Your task to perform on an android device: change the clock style Image 0: 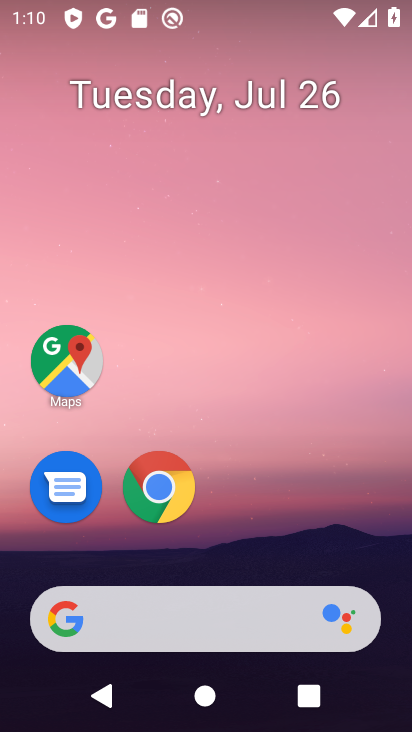
Step 0: drag from (269, 589) to (263, 111)
Your task to perform on an android device: change the clock style Image 1: 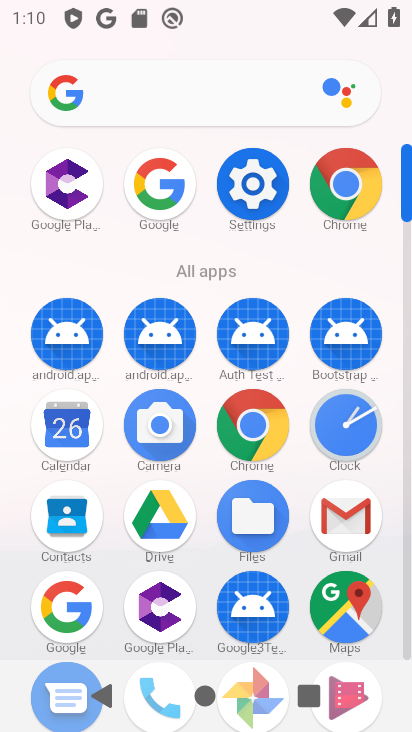
Step 1: drag from (212, 493) to (227, 142)
Your task to perform on an android device: change the clock style Image 2: 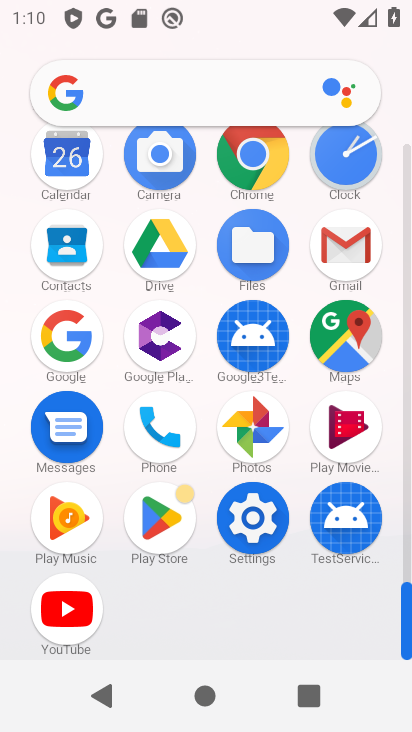
Step 2: click (347, 165)
Your task to perform on an android device: change the clock style Image 3: 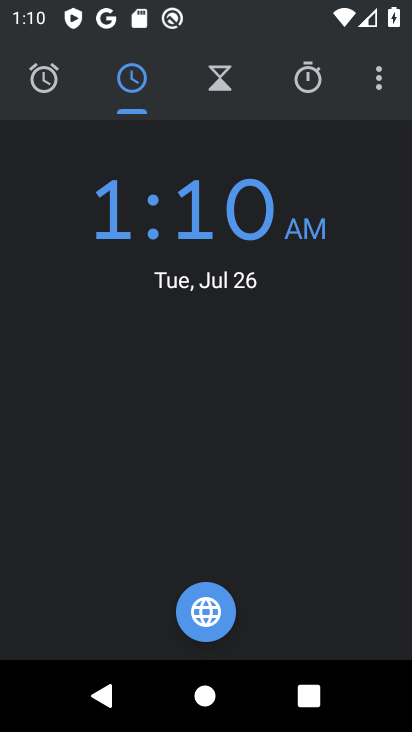
Step 3: click (390, 95)
Your task to perform on an android device: change the clock style Image 4: 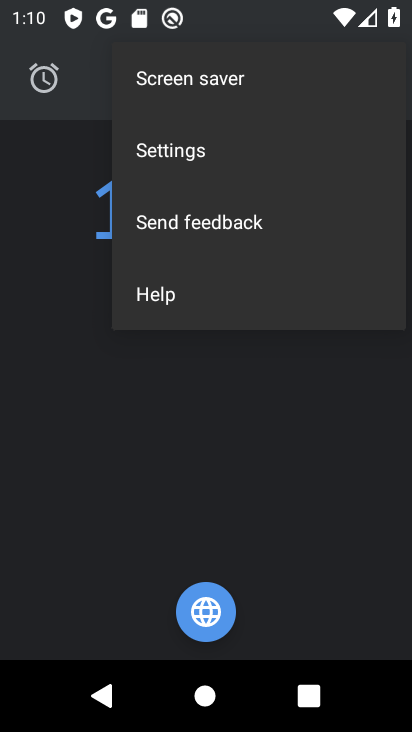
Step 4: click (244, 454)
Your task to perform on an android device: change the clock style Image 5: 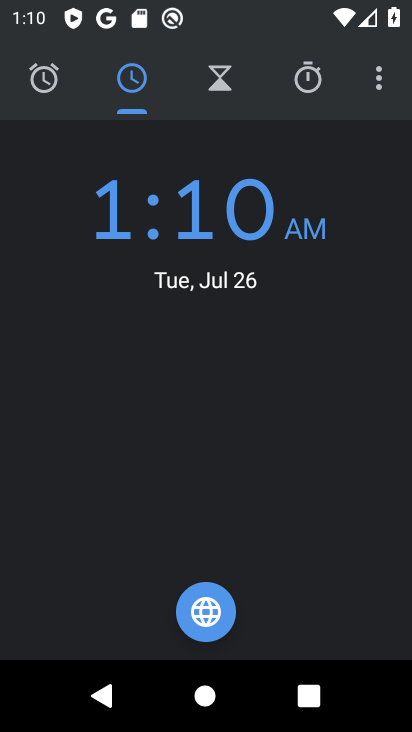
Step 5: click (382, 91)
Your task to perform on an android device: change the clock style Image 6: 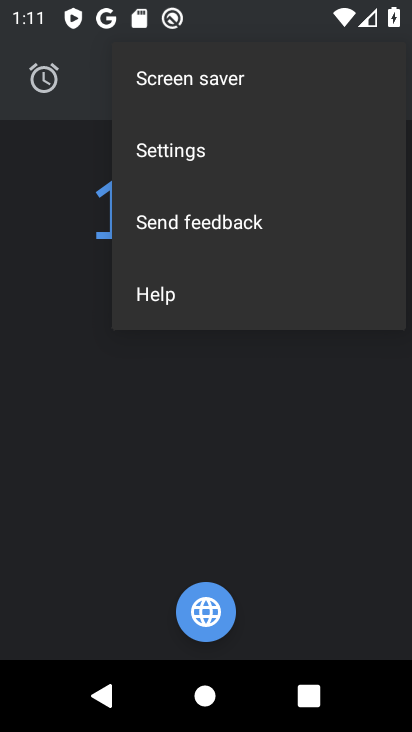
Step 6: click (194, 153)
Your task to perform on an android device: change the clock style Image 7: 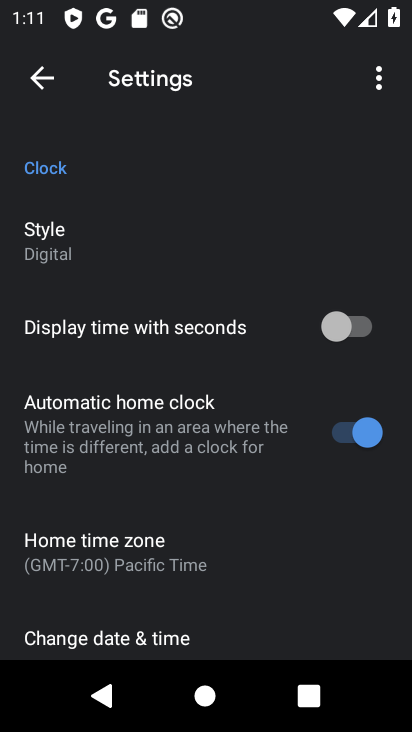
Step 7: click (119, 246)
Your task to perform on an android device: change the clock style Image 8: 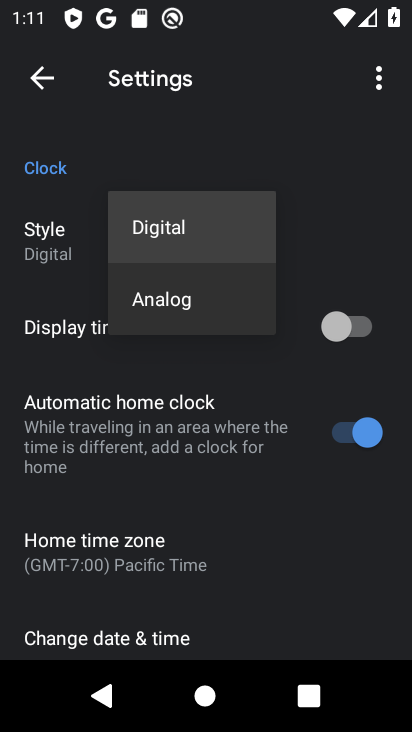
Step 8: click (253, 293)
Your task to perform on an android device: change the clock style Image 9: 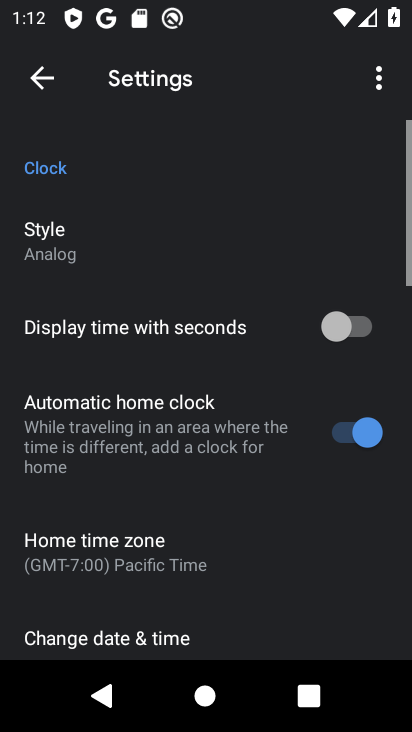
Step 9: task complete